Your task to perform on an android device: Open settings on Google Maps Image 0: 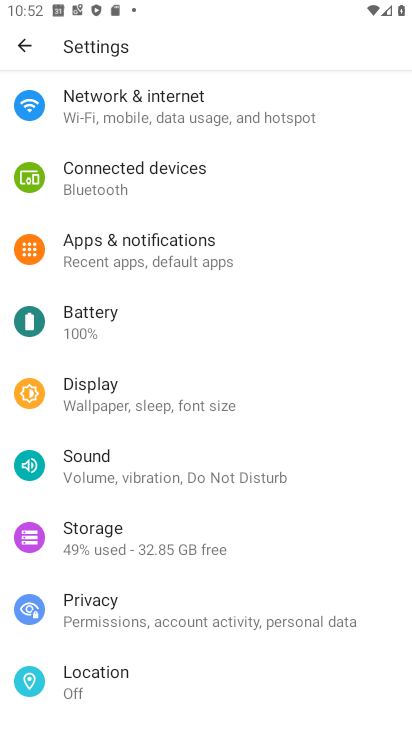
Step 0: press home button
Your task to perform on an android device: Open settings on Google Maps Image 1: 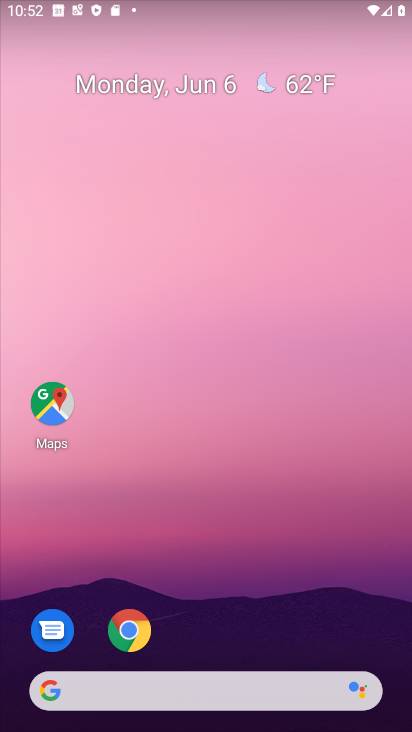
Step 1: drag from (328, 581) to (318, 154)
Your task to perform on an android device: Open settings on Google Maps Image 2: 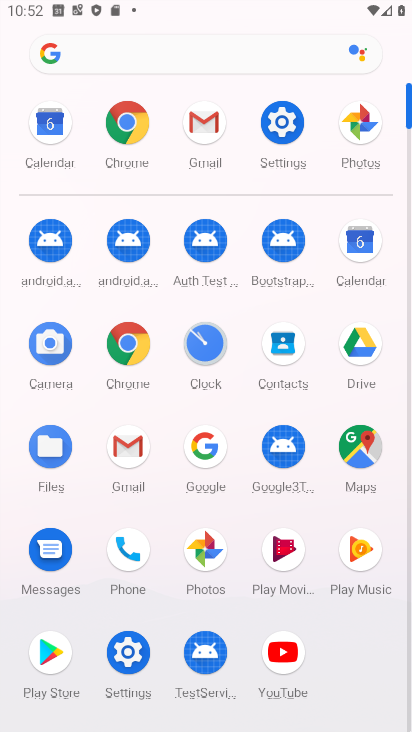
Step 2: click (361, 446)
Your task to perform on an android device: Open settings on Google Maps Image 3: 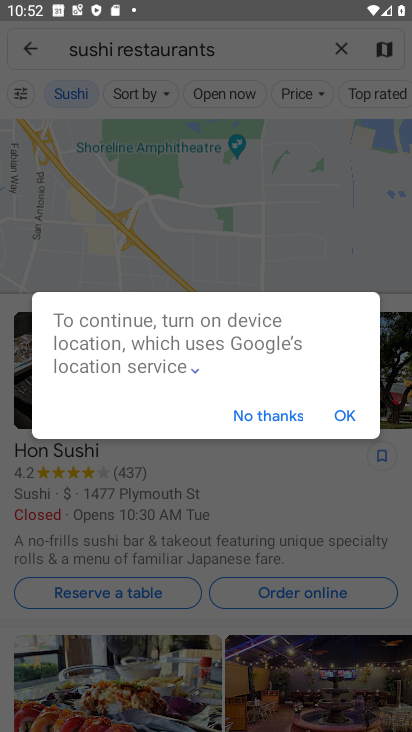
Step 3: click (352, 423)
Your task to perform on an android device: Open settings on Google Maps Image 4: 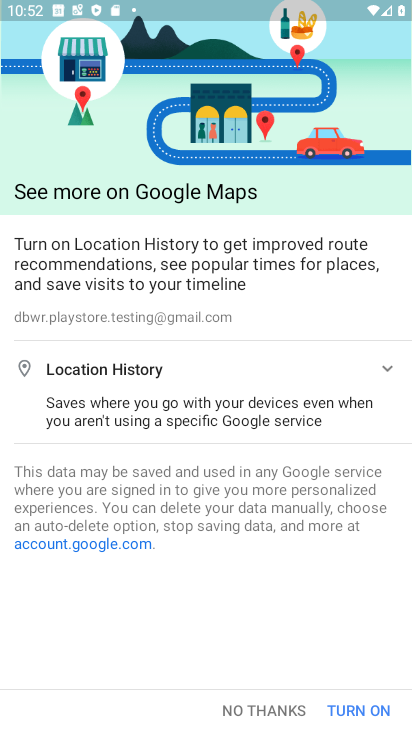
Step 4: click (234, 716)
Your task to perform on an android device: Open settings on Google Maps Image 5: 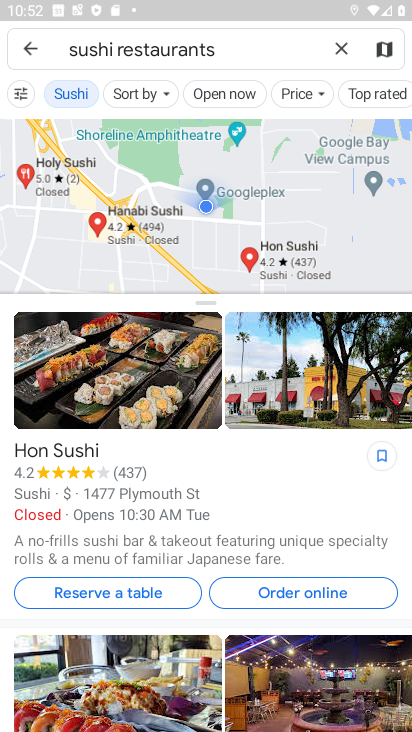
Step 5: task complete